Your task to perform on an android device: change alarm snooze length Image 0: 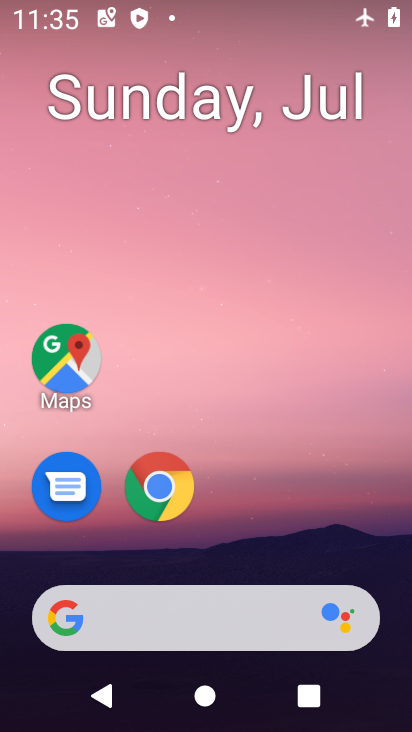
Step 0: press home button
Your task to perform on an android device: change alarm snooze length Image 1: 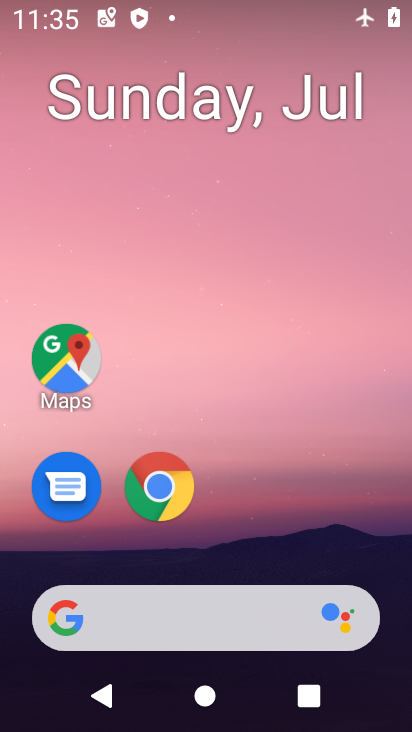
Step 1: drag from (382, 530) to (347, 86)
Your task to perform on an android device: change alarm snooze length Image 2: 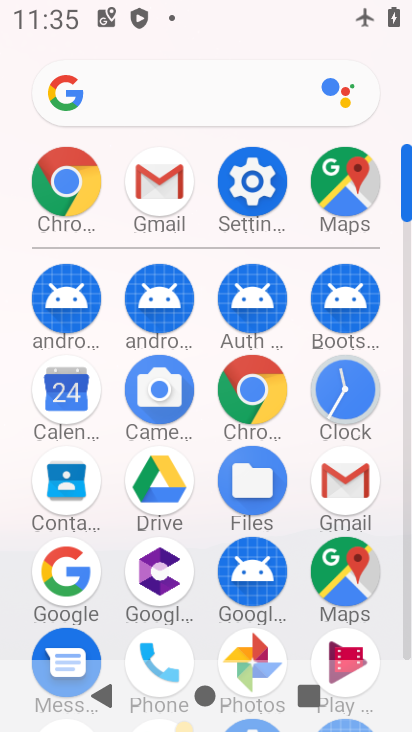
Step 2: click (348, 381)
Your task to perform on an android device: change alarm snooze length Image 3: 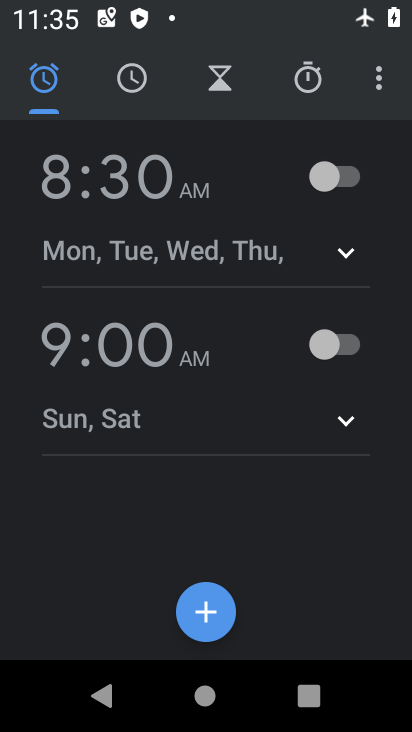
Step 3: click (377, 85)
Your task to perform on an android device: change alarm snooze length Image 4: 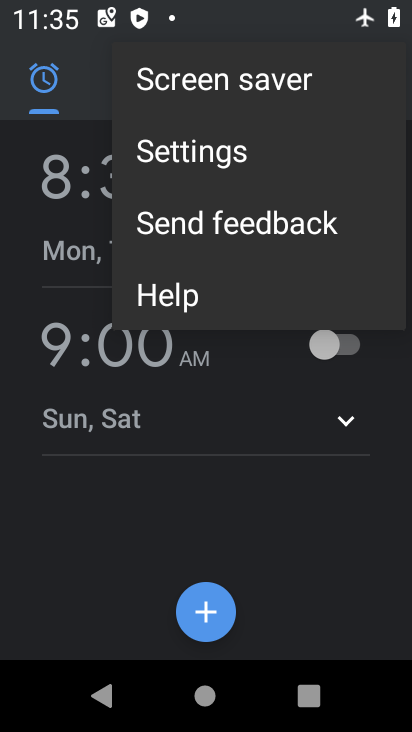
Step 4: click (270, 174)
Your task to perform on an android device: change alarm snooze length Image 5: 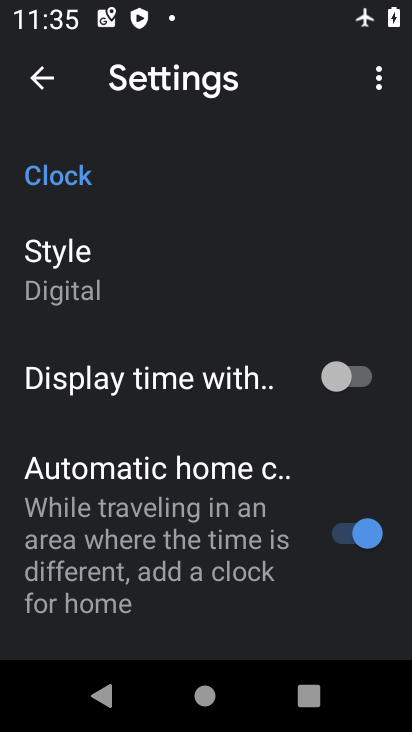
Step 5: drag from (271, 574) to (283, 384)
Your task to perform on an android device: change alarm snooze length Image 6: 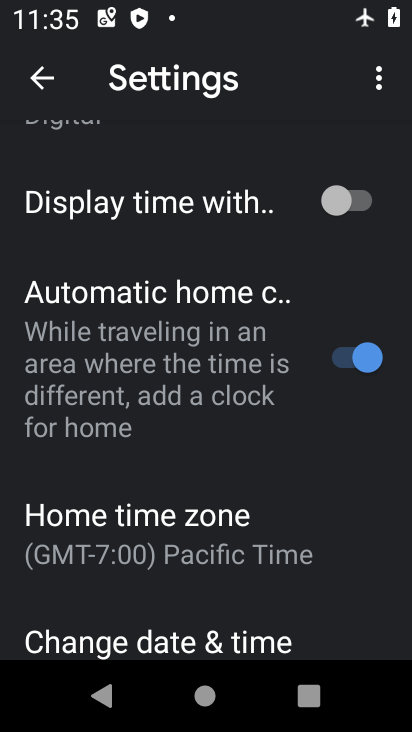
Step 6: drag from (293, 563) to (293, 435)
Your task to perform on an android device: change alarm snooze length Image 7: 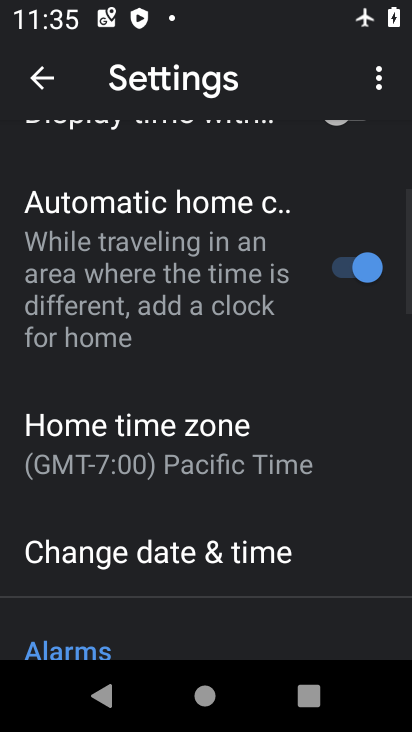
Step 7: drag from (297, 588) to (296, 438)
Your task to perform on an android device: change alarm snooze length Image 8: 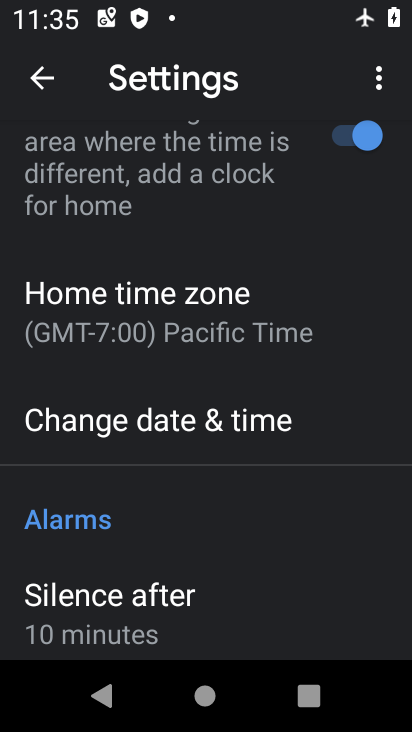
Step 8: drag from (311, 596) to (307, 471)
Your task to perform on an android device: change alarm snooze length Image 9: 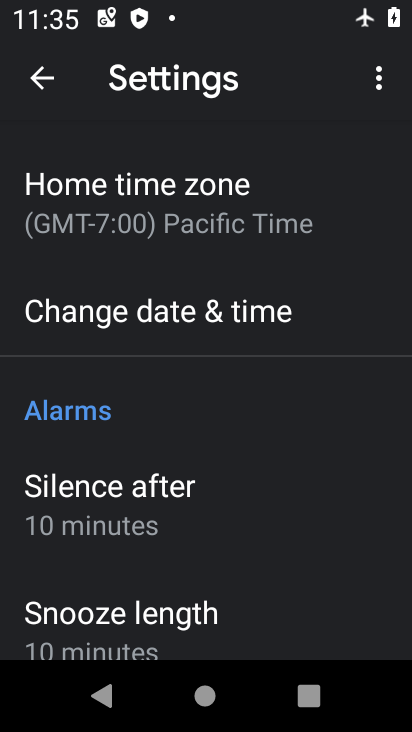
Step 9: drag from (305, 579) to (305, 453)
Your task to perform on an android device: change alarm snooze length Image 10: 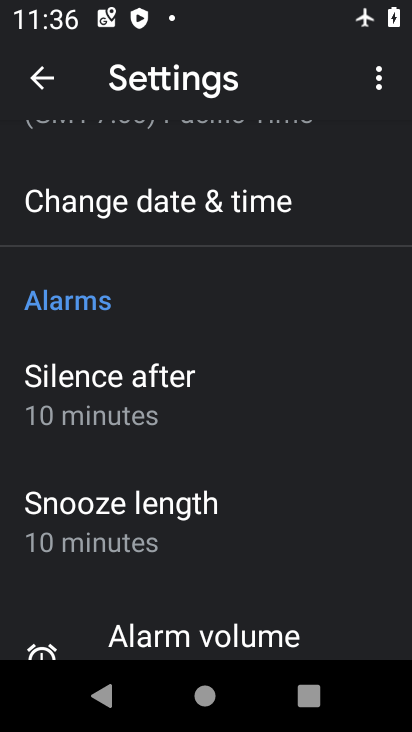
Step 10: click (254, 528)
Your task to perform on an android device: change alarm snooze length Image 11: 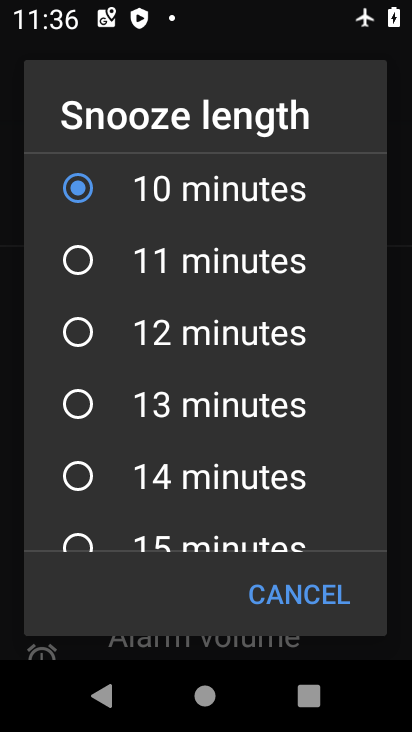
Step 11: click (274, 408)
Your task to perform on an android device: change alarm snooze length Image 12: 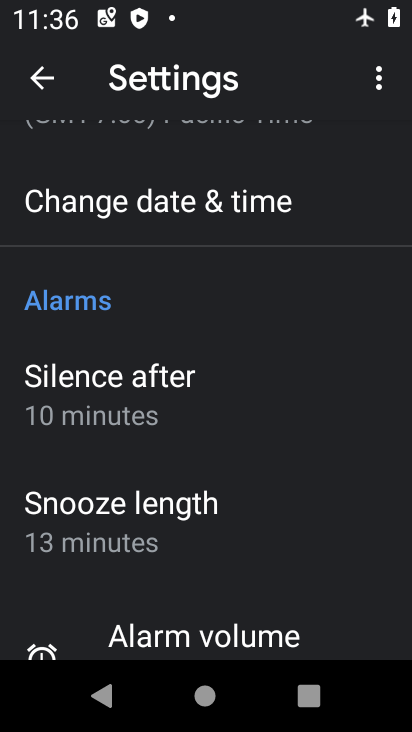
Step 12: task complete